Your task to perform on an android device: all mails in gmail Image 0: 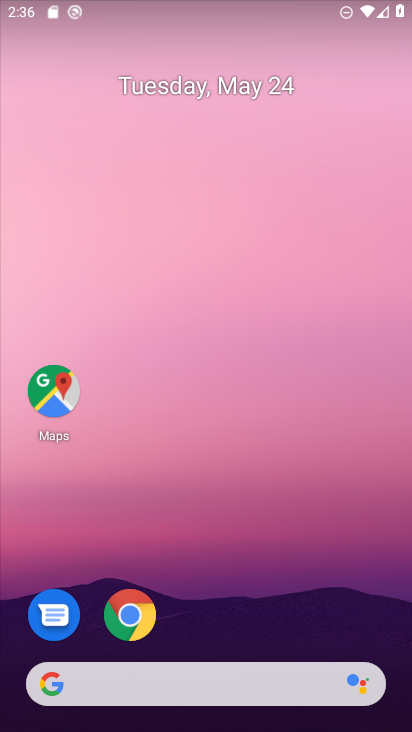
Step 0: drag from (209, 714) to (220, 107)
Your task to perform on an android device: all mails in gmail Image 1: 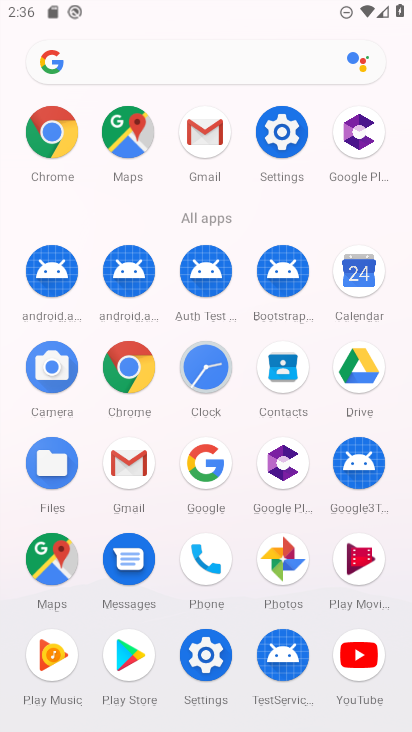
Step 1: click (130, 472)
Your task to perform on an android device: all mails in gmail Image 2: 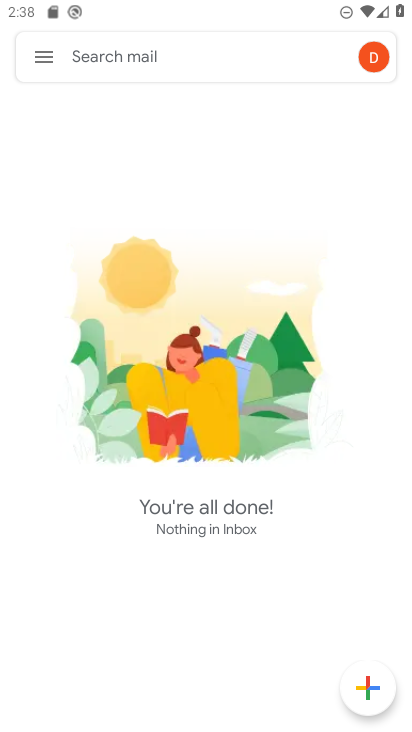
Step 2: click (38, 56)
Your task to perform on an android device: all mails in gmail Image 3: 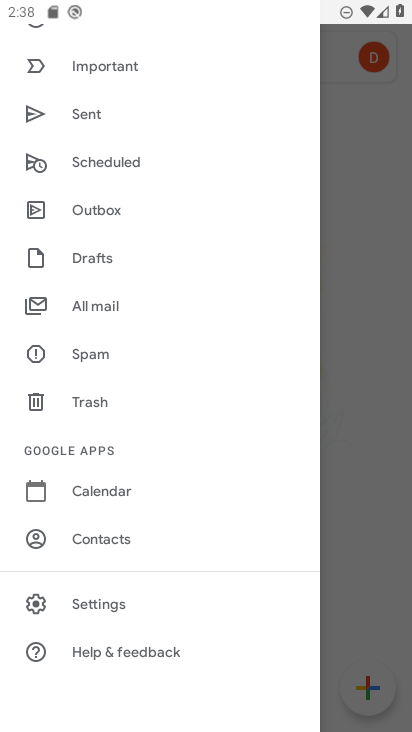
Step 3: click (117, 300)
Your task to perform on an android device: all mails in gmail Image 4: 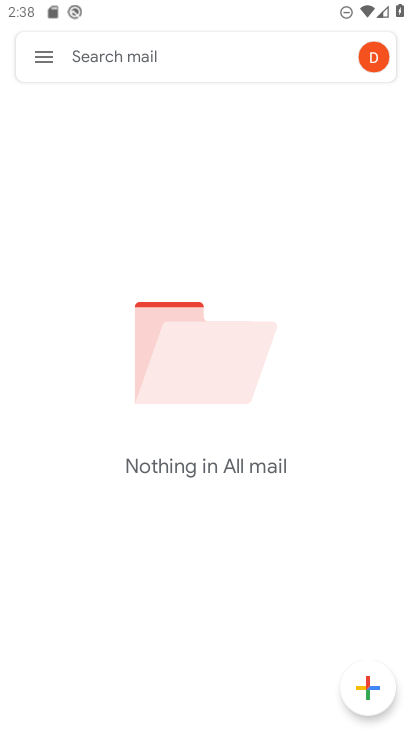
Step 4: task complete